Your task to perform on an android device: Open the calendar and show me this week's events? Image 0: 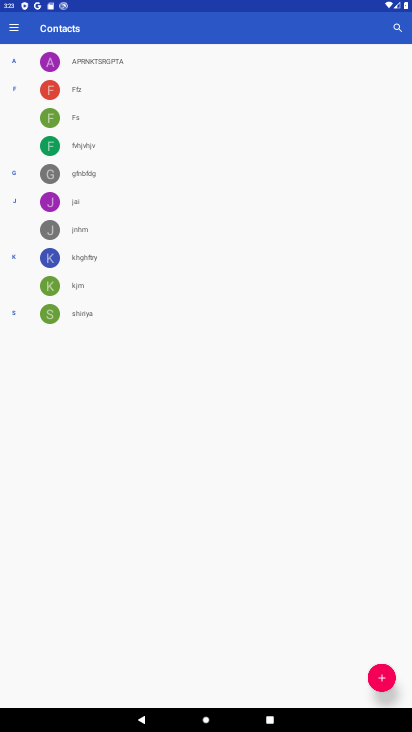
Step 0: press home button
Your task to perform on an android device: Open the calendar and show me this week's events? Image 1: 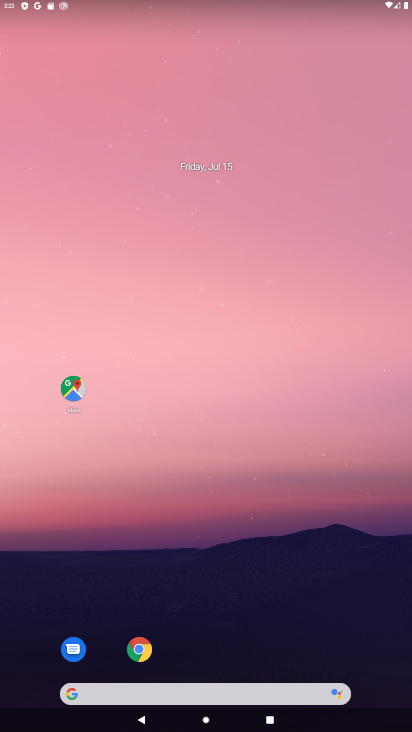
Step 1: drag from (183, 655) to (209, 209)
Your task to perform on an android device: Open the calendar and show me this week's events? Image 2: 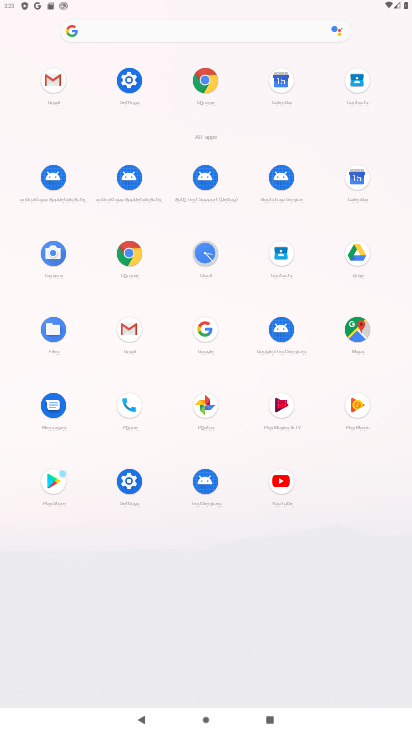
Step 2: click (346, 170)
Your task to perform on an android device: Open the calendar and show me this week's events? Image 3: 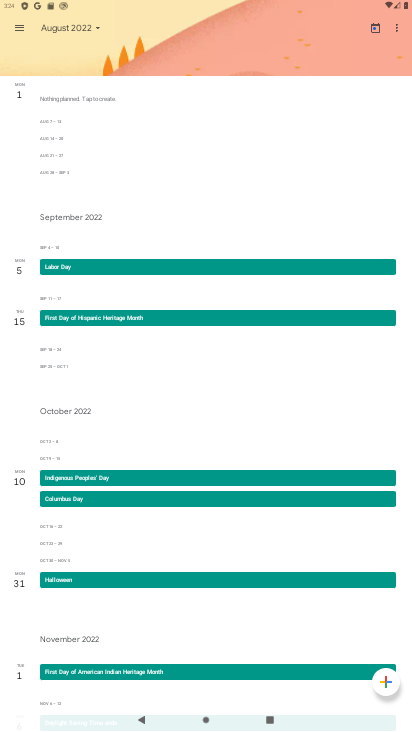
Step 3: click (89, 29)
Your task to perform on an android device: Open the calendar and show me this week's events? Image 4: 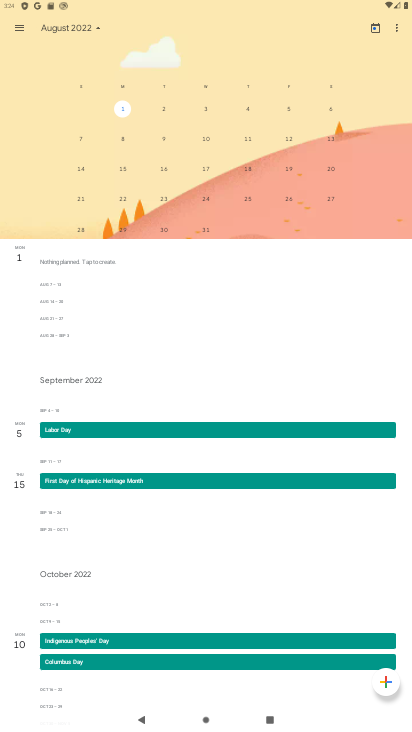
Step 4: task complete